Your task to perform on an android device: Open wifi settings Image 0: 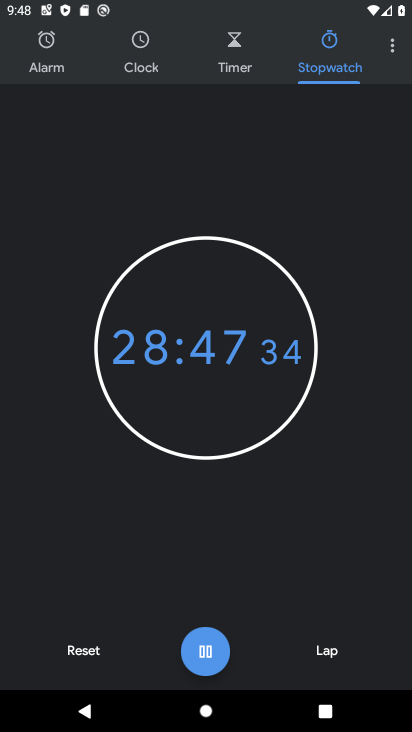
Step 0: drag from (183, 6) to (202, 485)
Your task to perform on an android device: Open wifi settings Image 1: 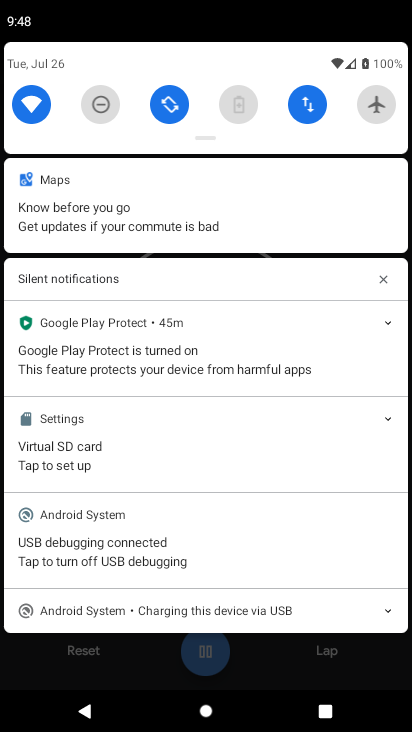
Step 1: click (24, 111)
Your task to perform on an android device: Open wifi settings Image 2: 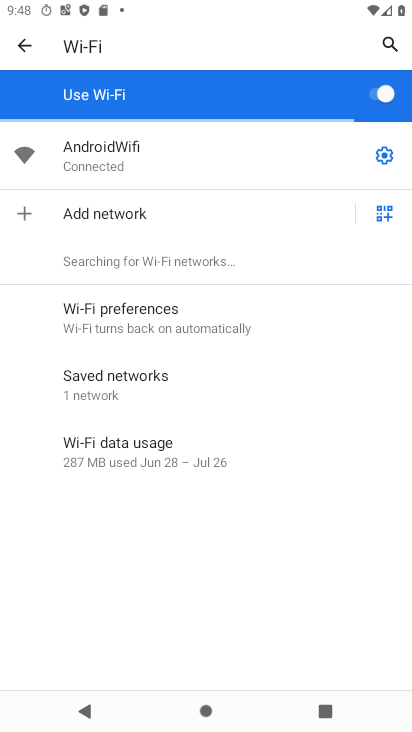
Step 2: task complete